Your task to perform on an android device: Go to network settings Image 0: 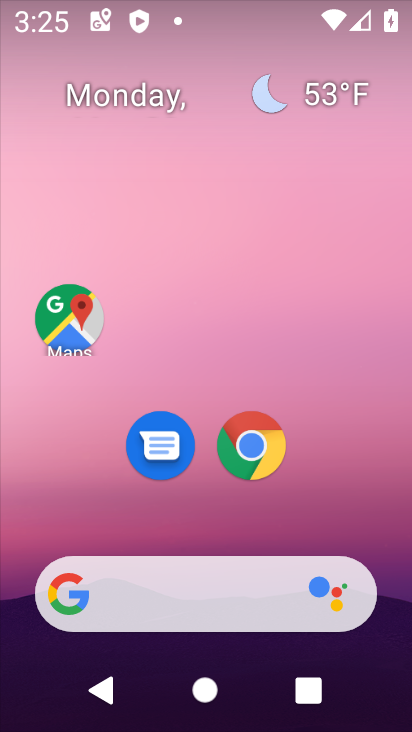
Step 0: drag from (207, 521) to (214, 18)
Your task to perform on an android device: Go to network settings Image 1: 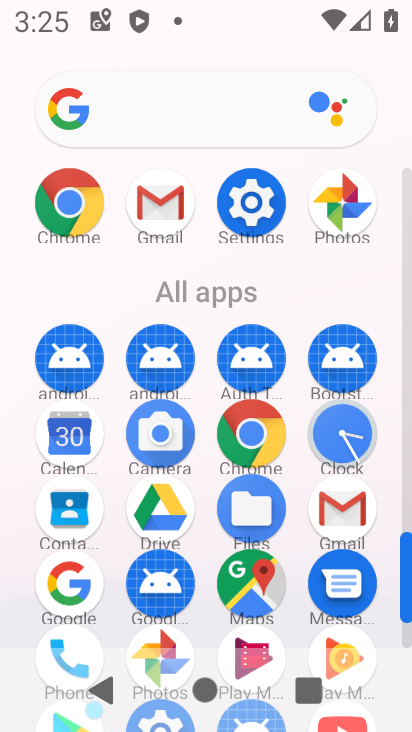
Step 1: click (256, 207)
Your task to perform on an android device: Go to network settings Image 2: 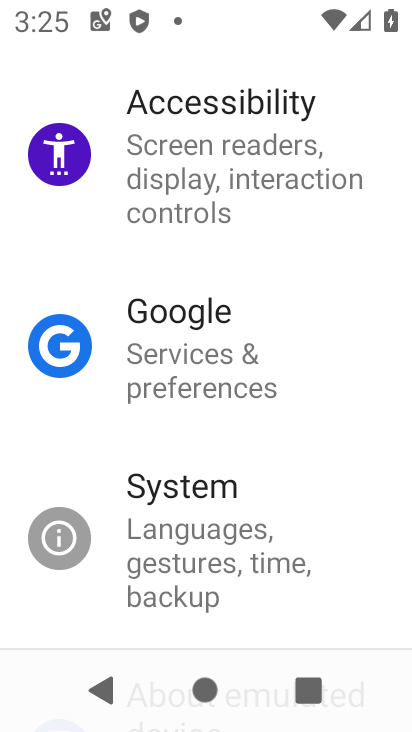
Step 2: drag from (194, 353) to (139, 613)
Your task to perform on an android device: Go to network settings Image 3: 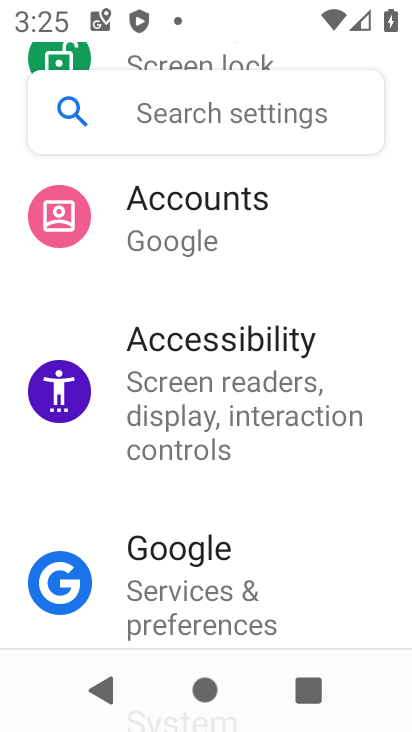
Step 3: drag from (248, 256) to (191, 722)
Your task to perform on an android device: Go to network settings Image 4: 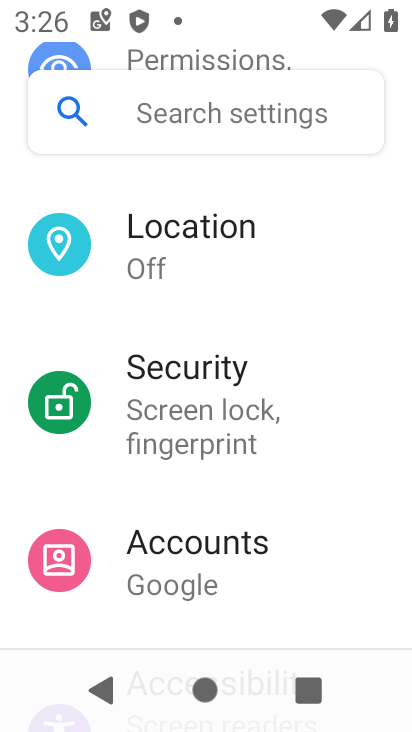
Step 4: drag from (210, 245) to (219, 597)
Your task to perform on an android device: Go to network settings Image 5: 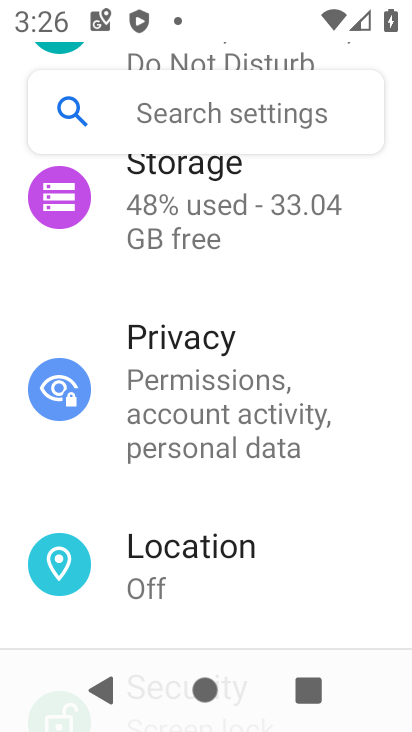
Step 5: drag from (240, 240) to (212, 527)
Your task to perform on an android device: Go to network settings Image 6: 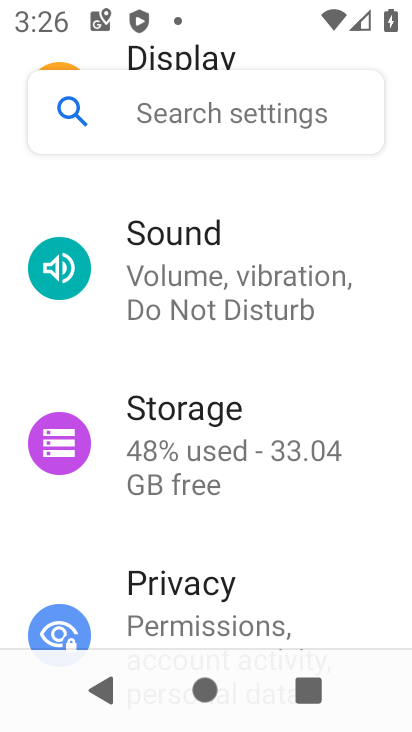
Step 6: drag from (256, 201) to (209, 513)
Your task to perform on an android device: Go to network settings Image 7: 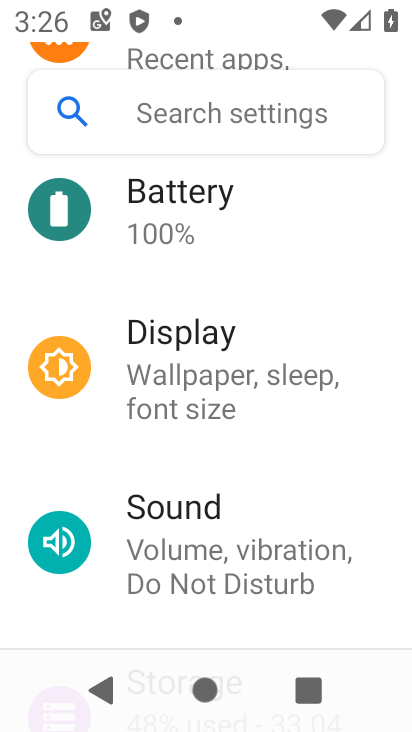
Step 7: drag from (219, 297) to (196, 628)
Your task to perform on an android device: Go to network settings Image 8: 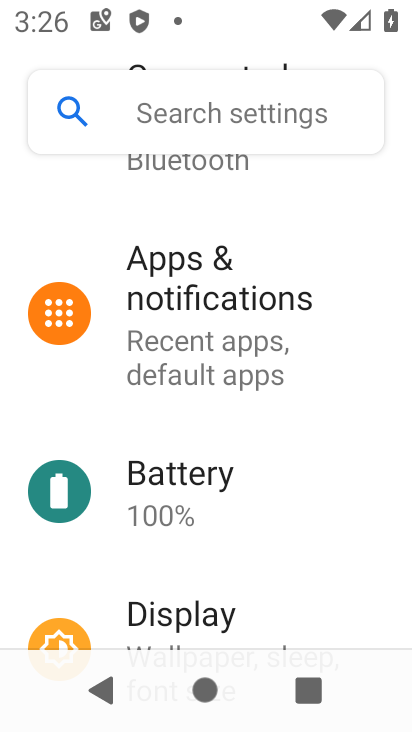
Step 8: drag from (259, 244) to (239, 396)
Your task to perform on an android device: Go to network settings Image 9: 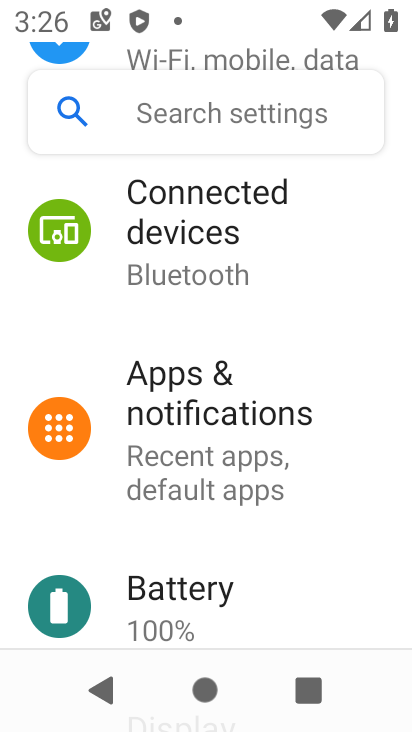
Step 9: drag from (252, 257) to (217, 546)
Your task to perform on an android device: Go to network settings Image 10: 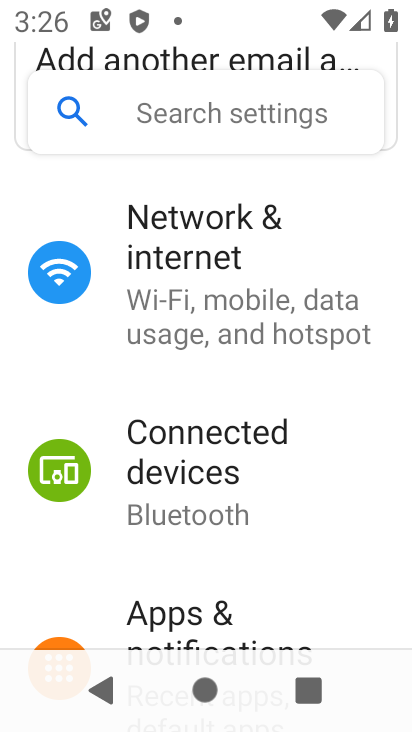
Step 10: click (237, 244)
Your task to perform on an android device: Go to network settings Image 11: 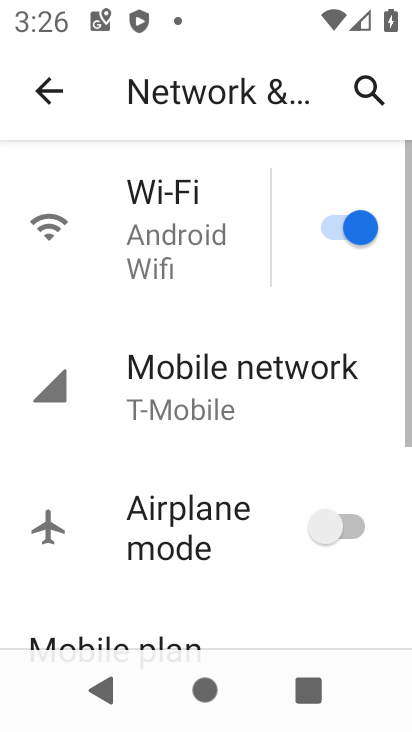
Step 11: task complete